Your task to perform on an android device: uninstall "DoorDash - Dasher" Image 0: 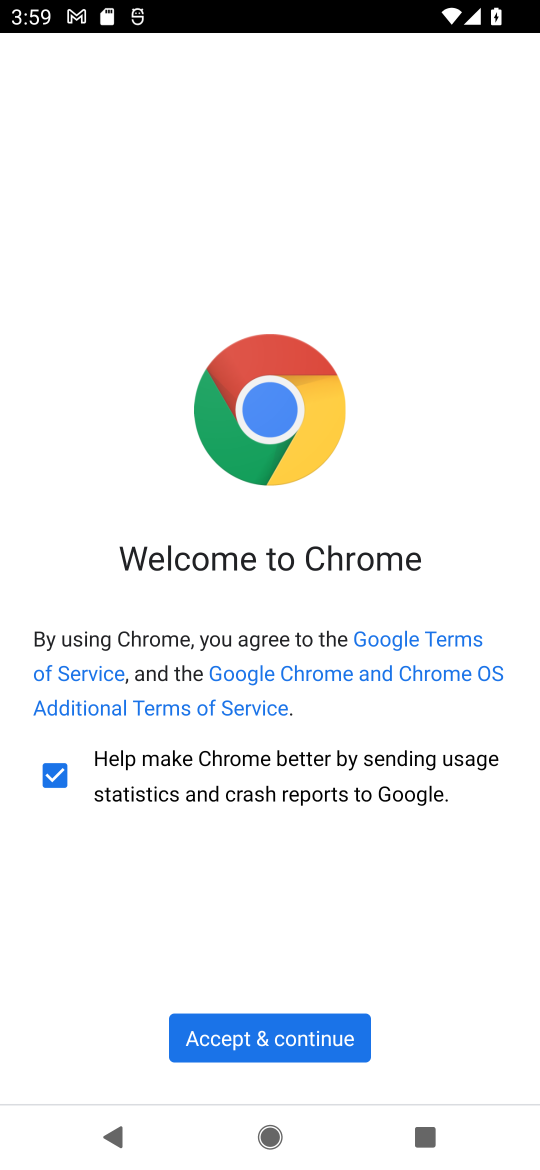
Step 0: press home button
Your task to perform on an android device: uninstall "DoorDash - Dasher" Image 1: 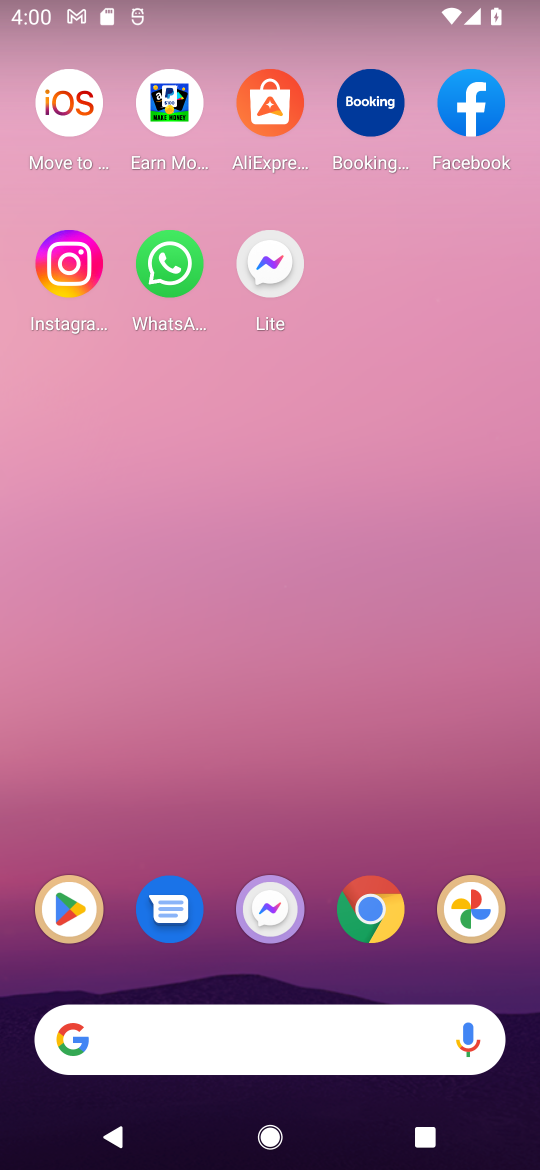
Step 1: click (81, 880)
Your task to perform on an android device: uninstall "DoorDash - Dasher" Image 2: 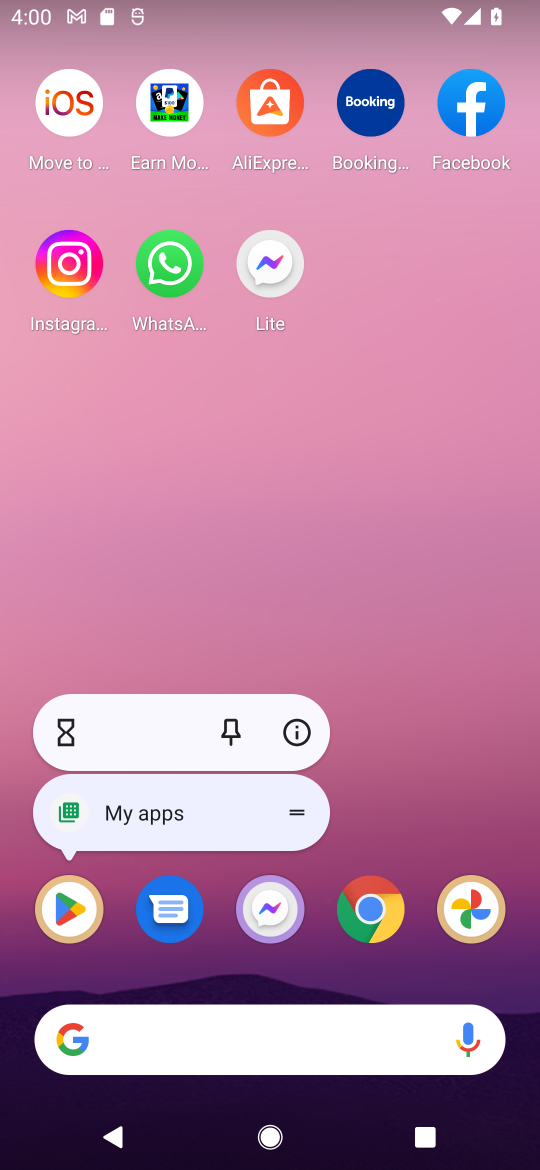
Step 2: click (77, 924)
Your task to perform on an android device: uninstall "DoorDash - Dasher" Image 3: 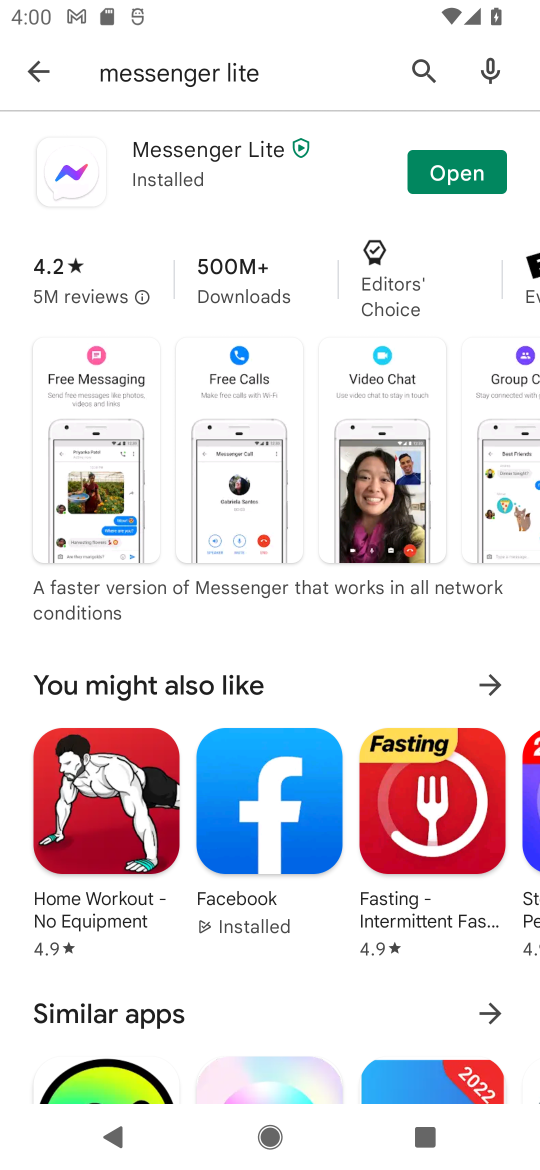
Step 3: click (220, 43)
Your task to perform on an android device: uninstall "DoorDash - Dasher" Image 4: 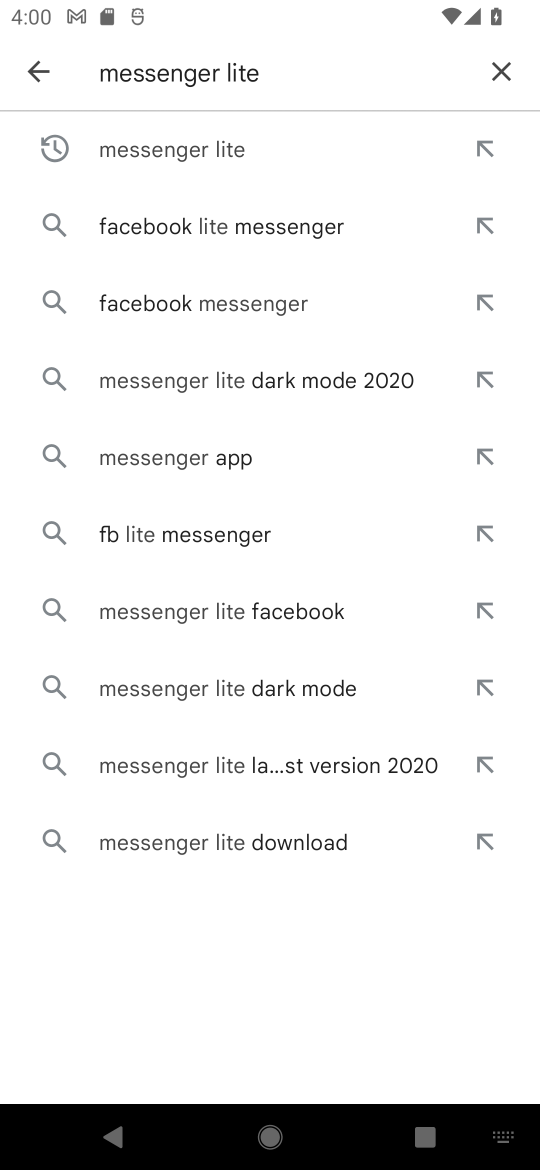
Step 4: click (488, 83)
Your task to perform on an android device: uninstall "DoorDash - Dasher" Image 5: 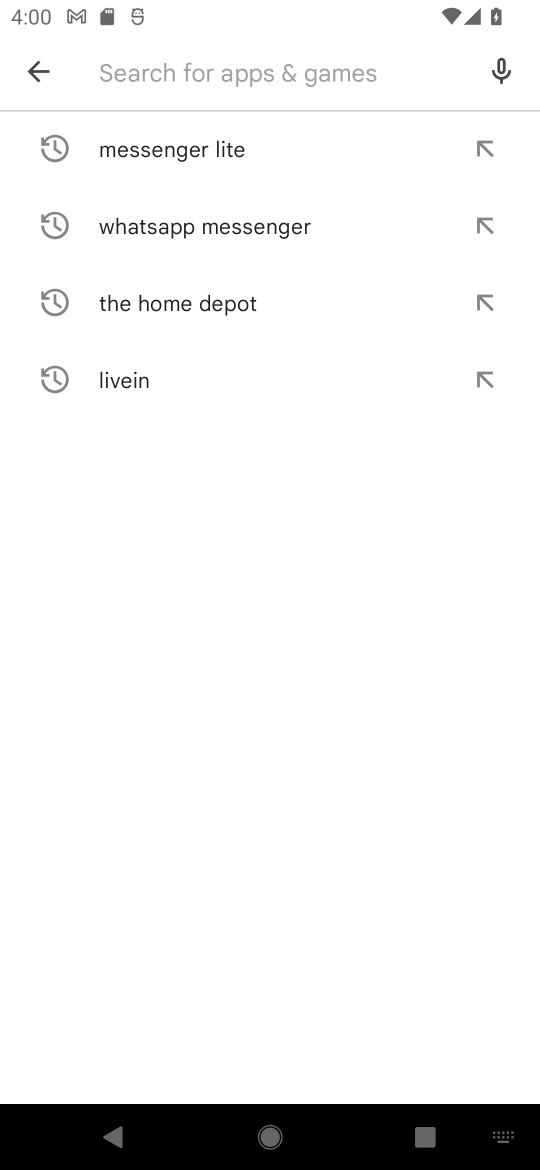
Step 5: type "DoorDash"
Your task to perform on an android device: uninstall "DoorDash - Dasher" Image 6: 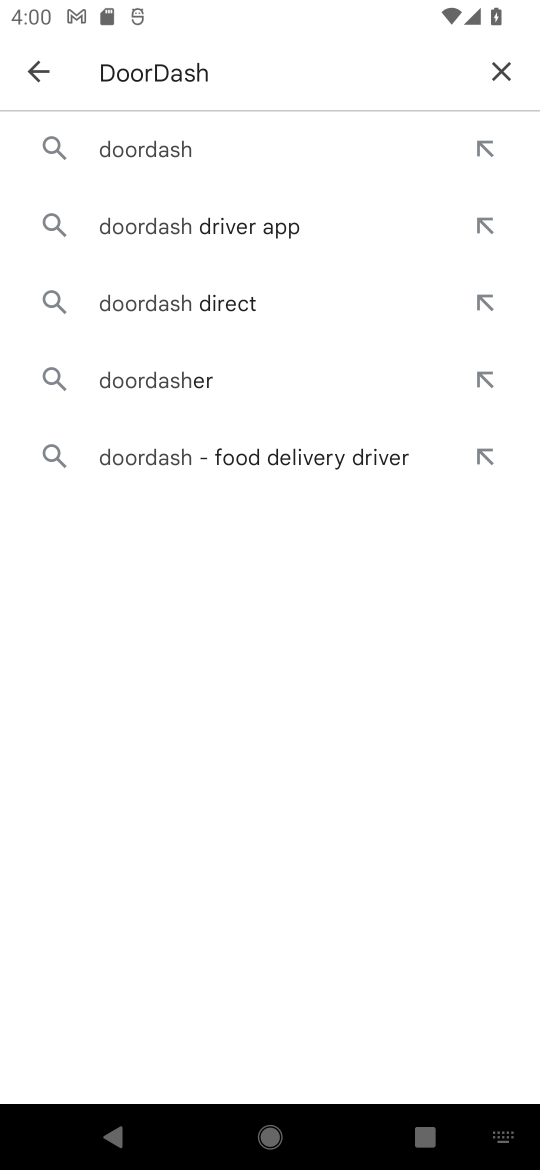
Step 6: click (150, 162)
Your task to perform on an android device: uninstall "DoorDash - Dasher" Image 7: 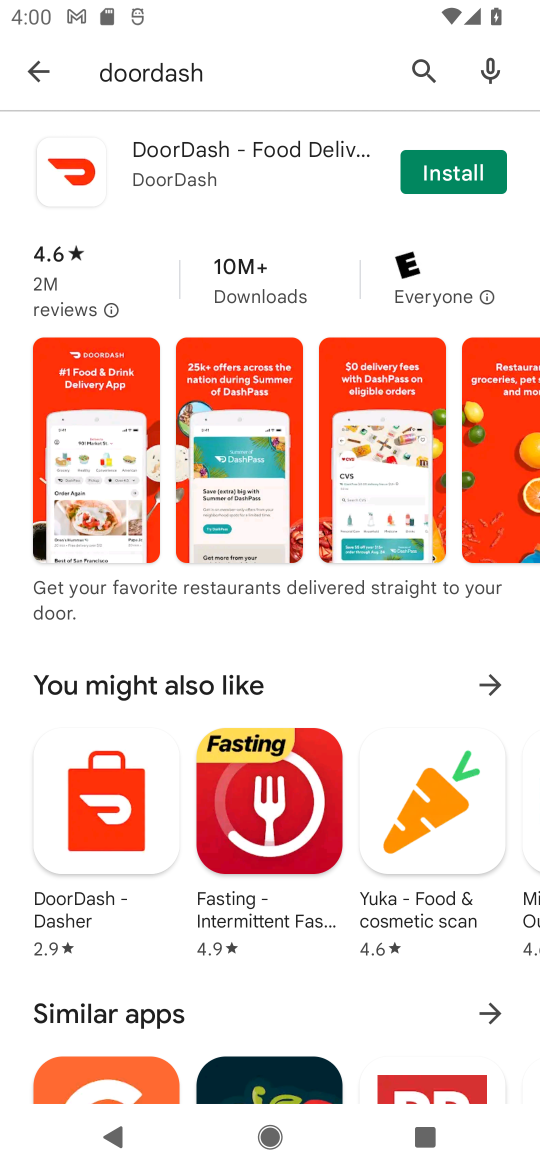
Step 7: click (61, 159)
Your task to perform on an android device: uninstall "DoorDash - Dasher" Image 8: 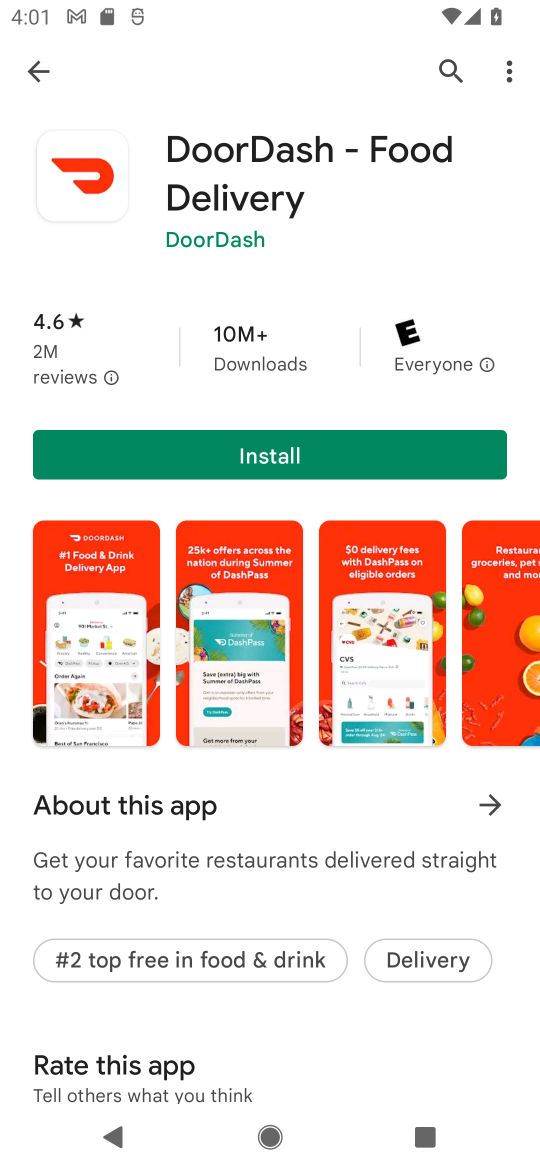
Step 8: task complete